Your task to perform on an android device: add a label to a message in the gmail app Image 0: 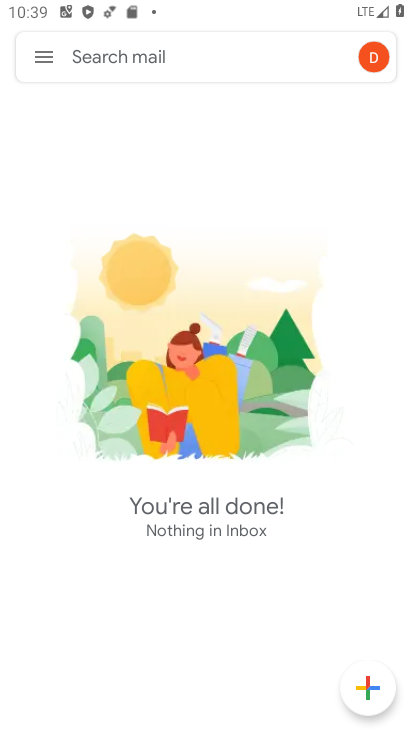
Step 0: click (37, 72)
Your task to perform on an android device: add a label to a message in the gmail app Image 1: 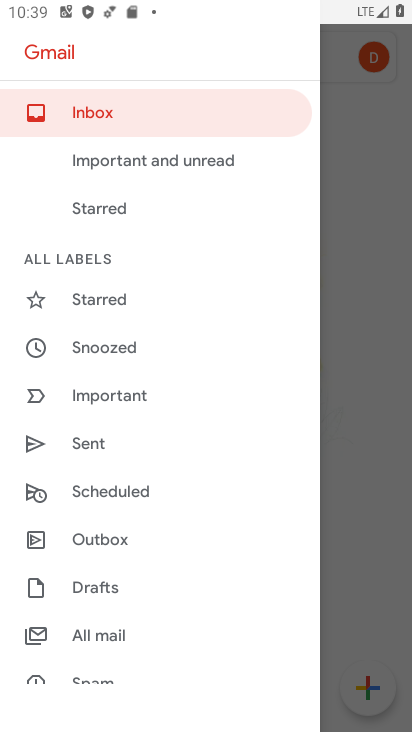
Step 1: drag from (122, 566) to (160, 367)
Your task to perform on an android device: add a label to a message in the gmail app Image 2: 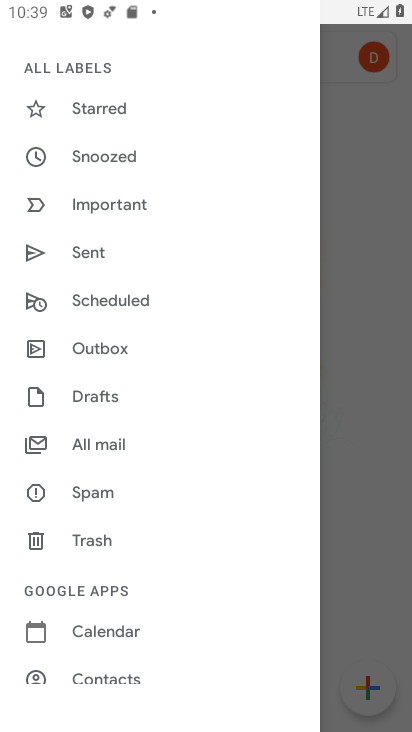
Step 2: click (130, 446)
Your task to perform on an android device: add a label to a message in the gmail app Image 3: 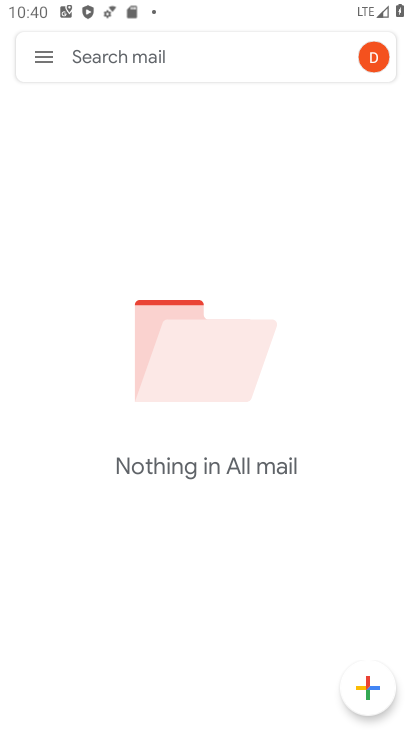
Step 3: task complete